Your task to perform on an android device: set an alarm Image 0: 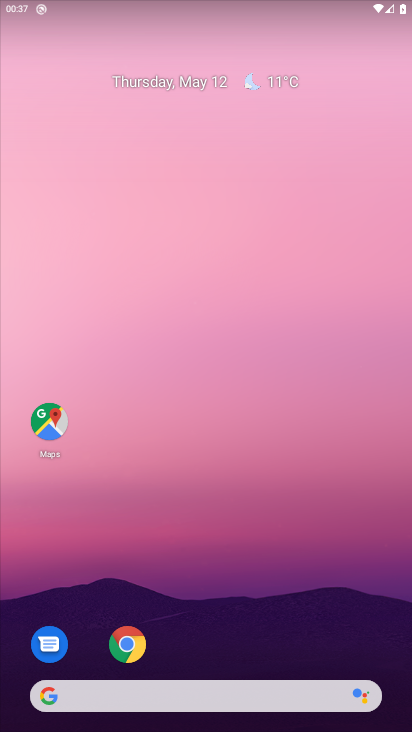
Step 0: drag from (221, 649) to (233, 139)
Your task to perform on an android device: set an alarm Image 1: 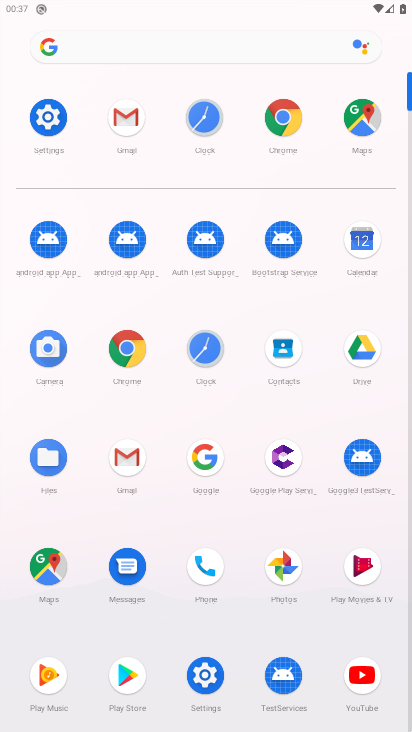
Step 1: click (209, 113)
Your task to perform on an android device: set an alarm Image 2: 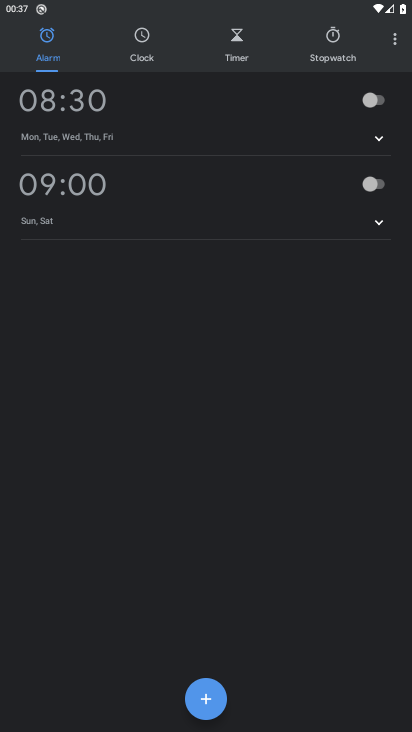
Step 2: click (374, 101)
Your task to perform on an android device: set an alarm Image 3: 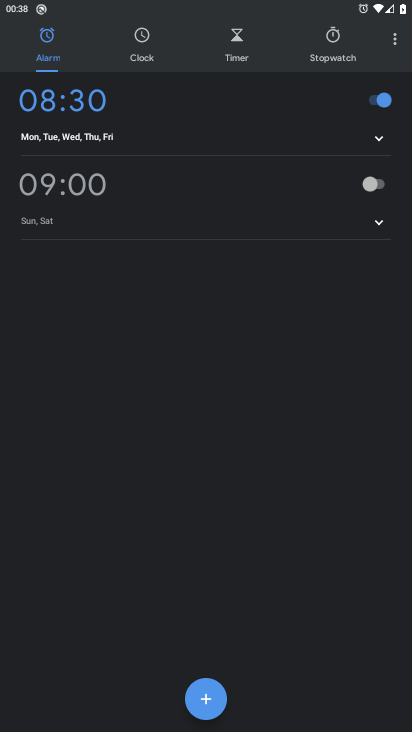
Step 3: task complete